Your task to perform on an android device: see creations saved in the google photos Image 0: 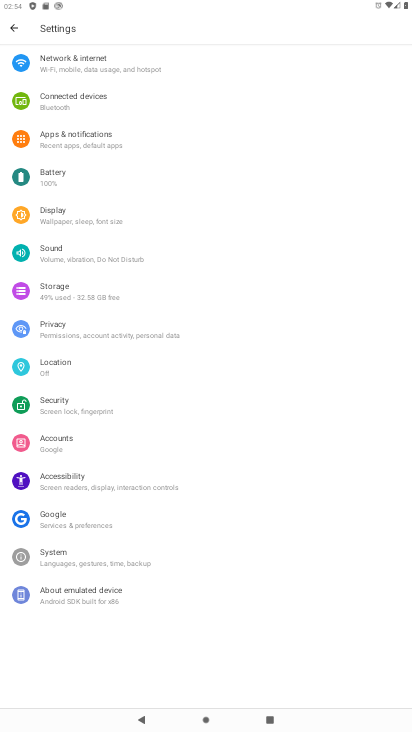
Step 0: press home button
Your task to perform on an android device: see creations saved in the google photos Image 1: 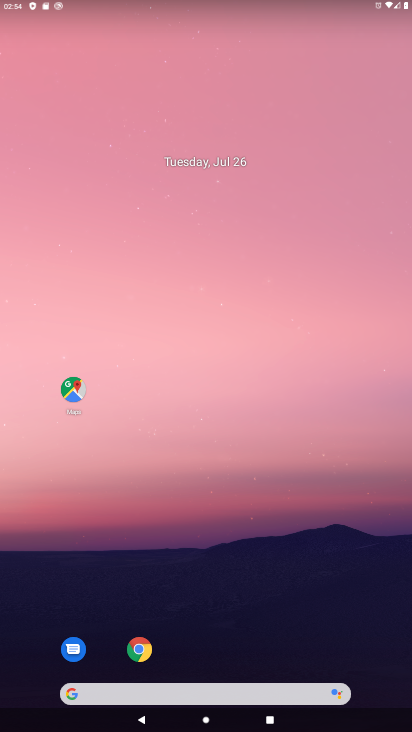
Step 1: drag from (183, 689) to (341, 281)
Your task to perform on an android device: see creations saved in the google photos Image 2: 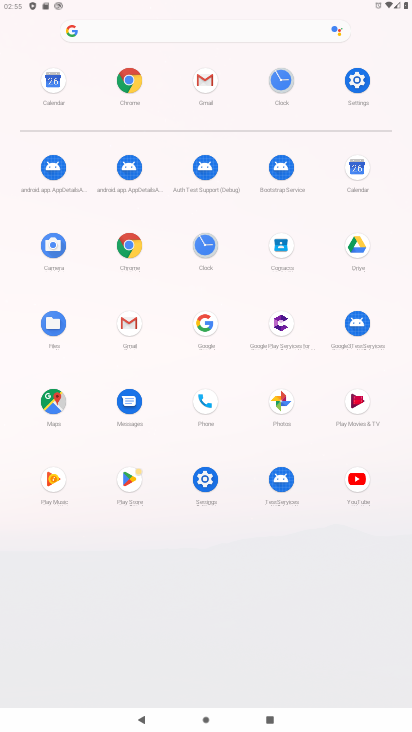
Step 2: click (279, 408)
Your task to perform on an android device: see creations saved in the google photos Image 3: 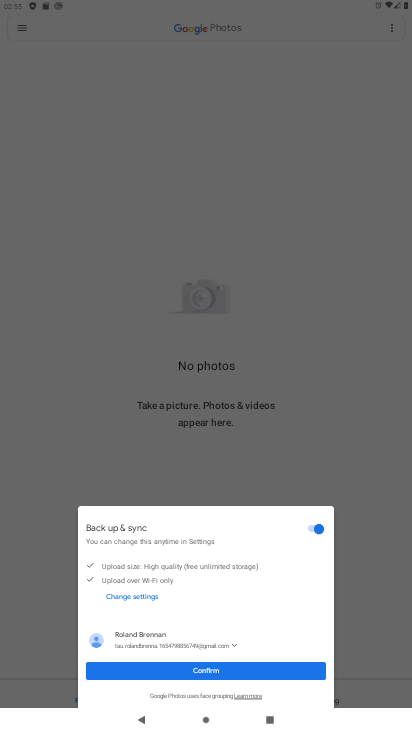
Step 3: click (207, 672)
Your task to perform on an android device: see creations saved in the google photos Image 4: 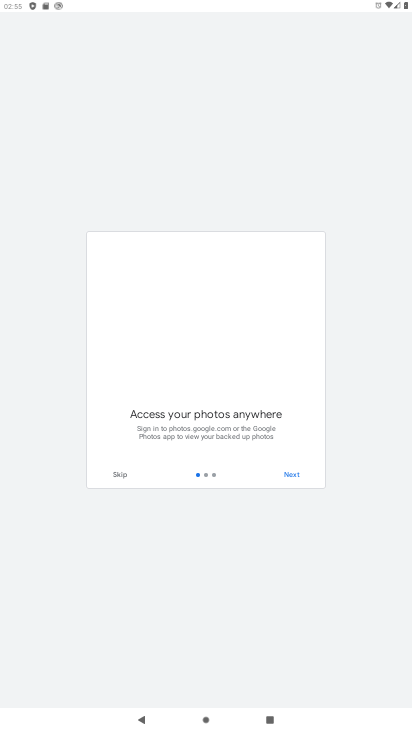
Step 4: click (289, 476)
Your task to perform on an android device: see creations saved in the google photos Image 5: 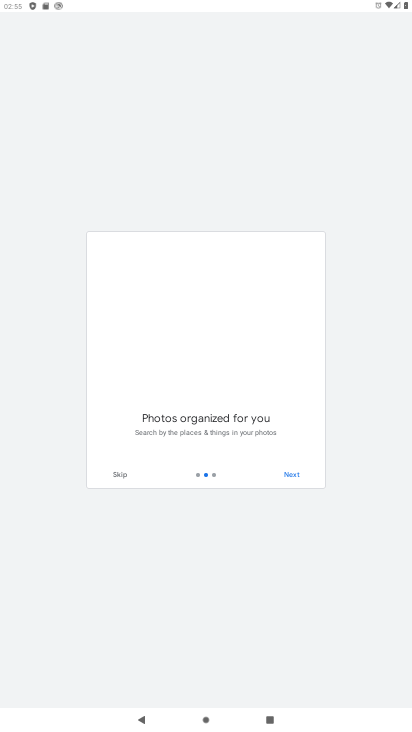
Step 5: click (289, 476)
Your task to perform on an android device: see creations saved in the google photos Image 6: 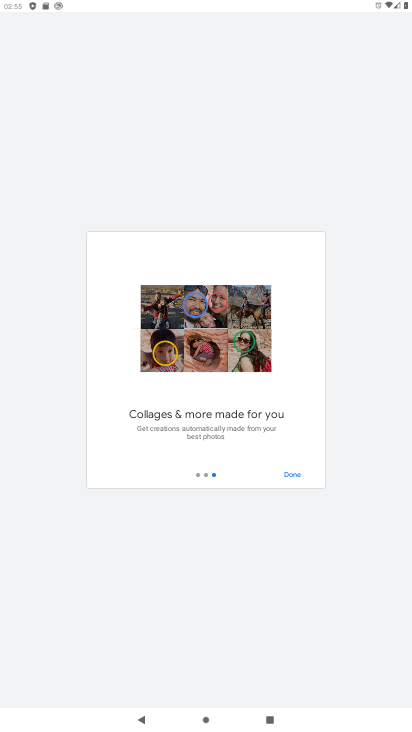
Step 6: click (289, 476)
Your task to perform on an android device: see creations saved in the google photos Image 7: 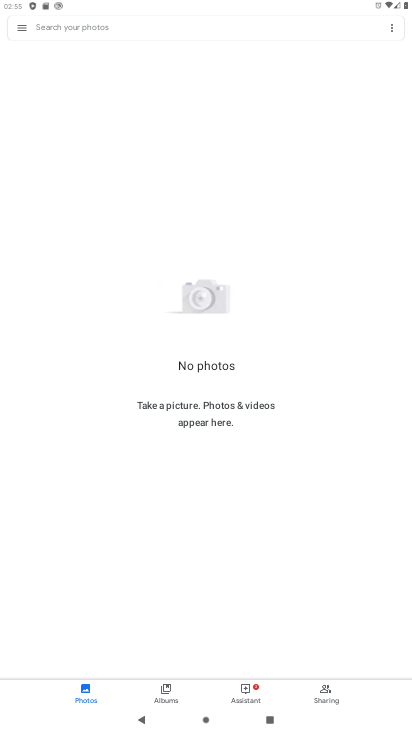
Step 7: click (168, 692)
Your task to perform on an android device: see creations saved in the google photos Image 8: 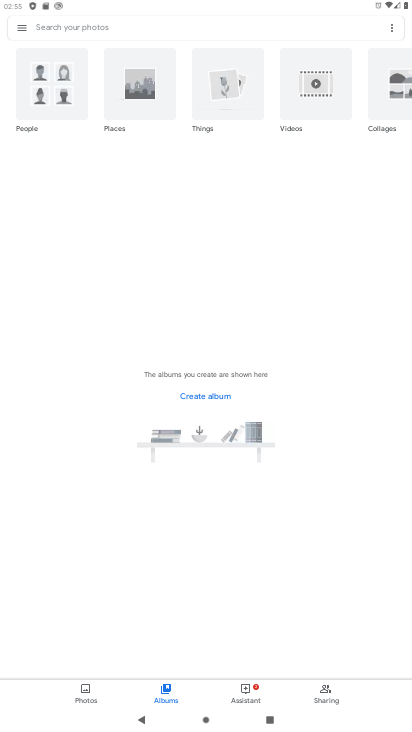
Step 8: click (330, 689)
Your task to perform on an android device: see creations saved in the google photos Image 9: 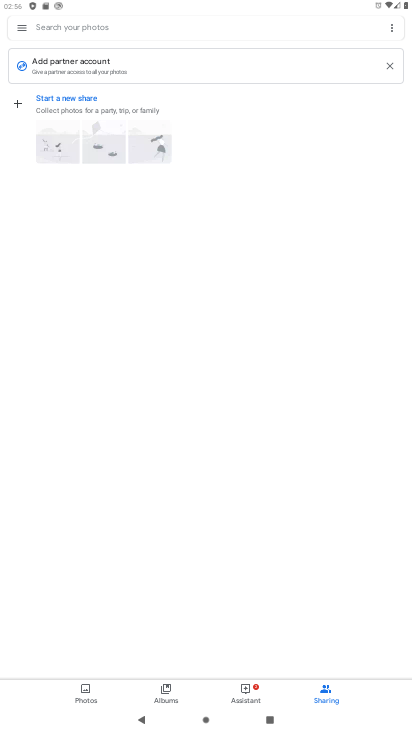
Step 9: task complete